Your task to perform on an android device: Open accessibility settings Image 0: 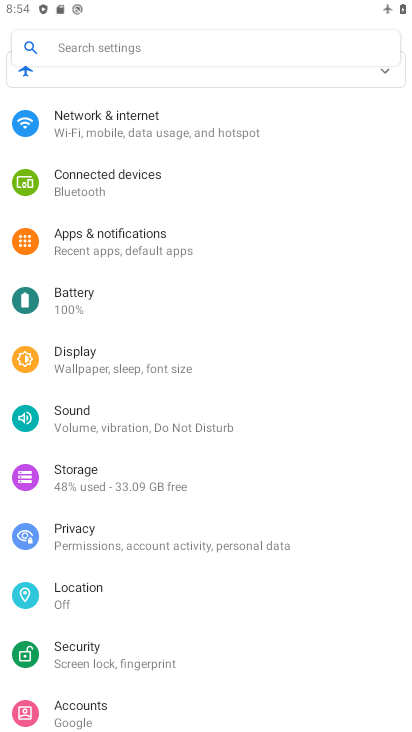
Step 0: press home button
Your task to perform on an android device: Open accessibility settings Image 1: 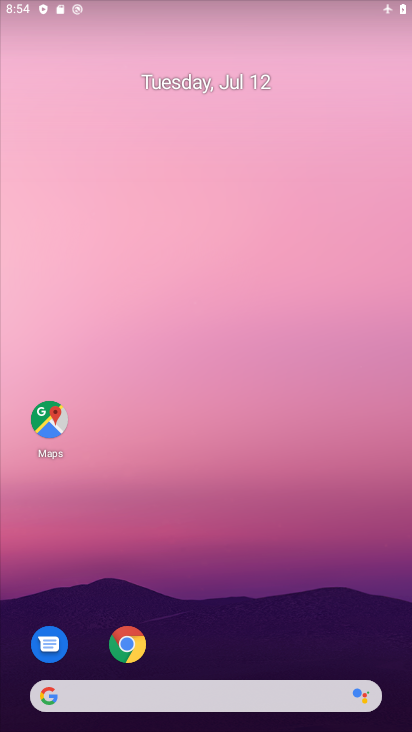
Step 1: drag from (216, 620) to (213, 258)
Your task to perform on an android device: Open accessibility settings Image 2: 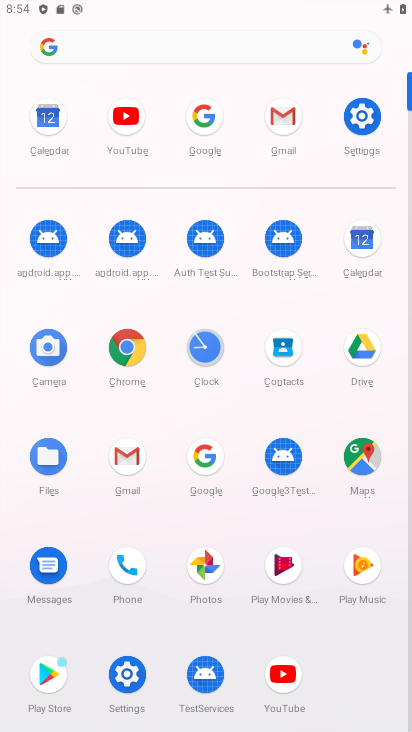
Step 2: click (352, 119)
Your task to perform on an android device: Open accessibility settings Image 3: 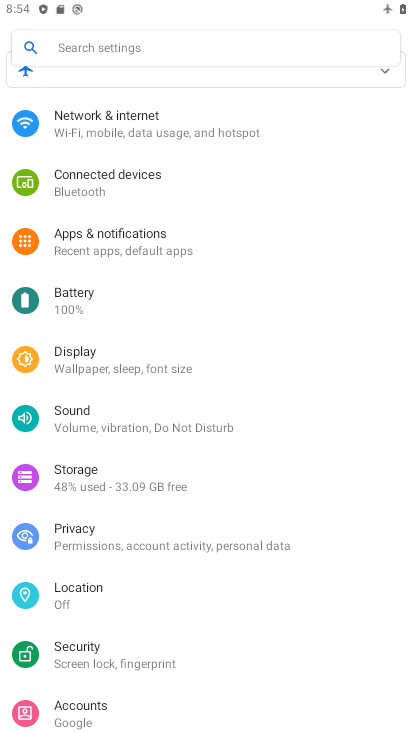
Step 3: drag from (133, 562) to (159, 275)
Your task to perform on an android device: Open accessibility settings Image 4: 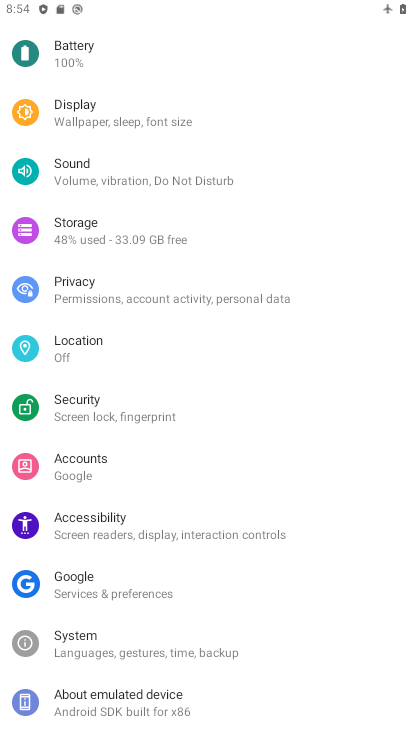
Step 4: click (138, 525)
Your task to perform on an android device: Open accessibility settings Image 5: 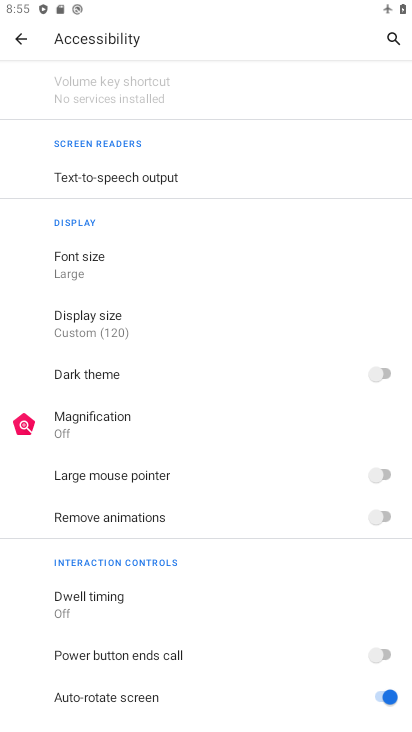
Step 5: task complete